Your task to perform on an android device: turn notification dots on Image 0: 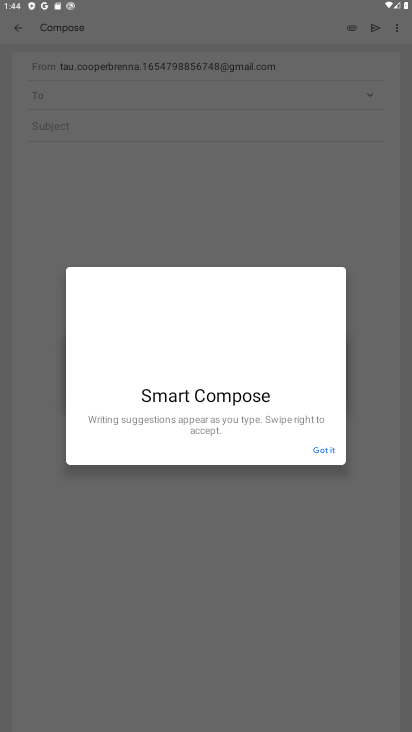
Step 0: press home button
Your task to perform on an android device: turn notification dots on Image 1: 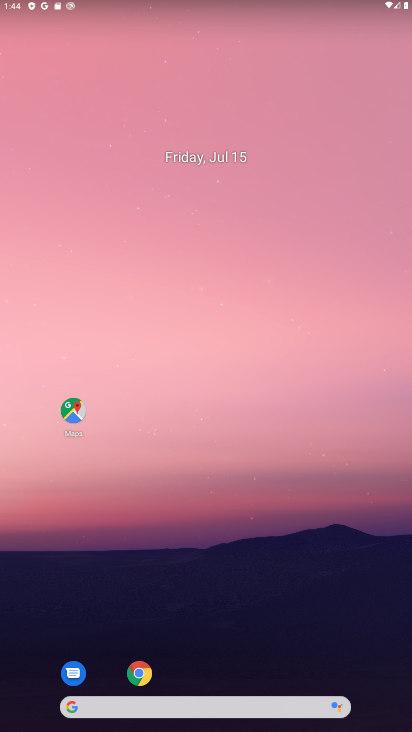
Step 1: drag from (389, 661) to (146, 0)
Your task to perform on an android device: turn notification dots on Image 2: 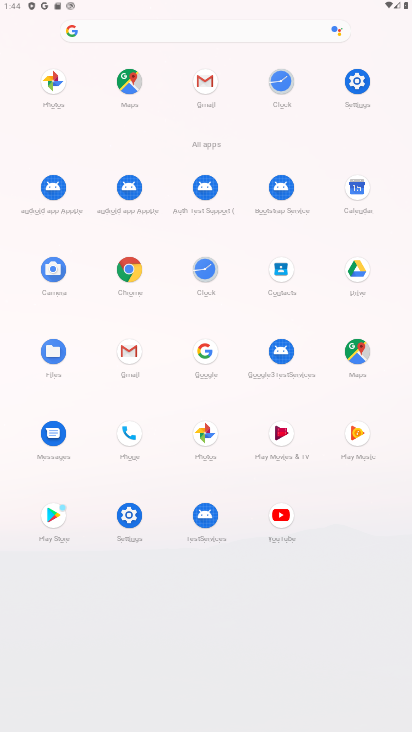
Step 2: click (363, 112)
Your task to perform on an android device: turn notification dots on Image 3: 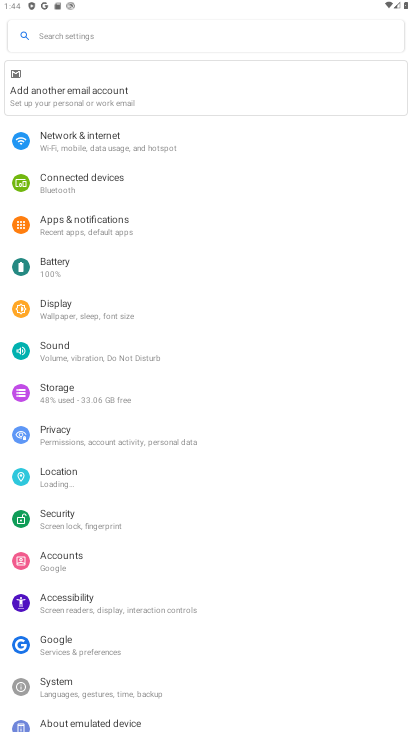
Step 3: click (247, 222)
Your task to perform on an android device: turn notification dots on Image 4: 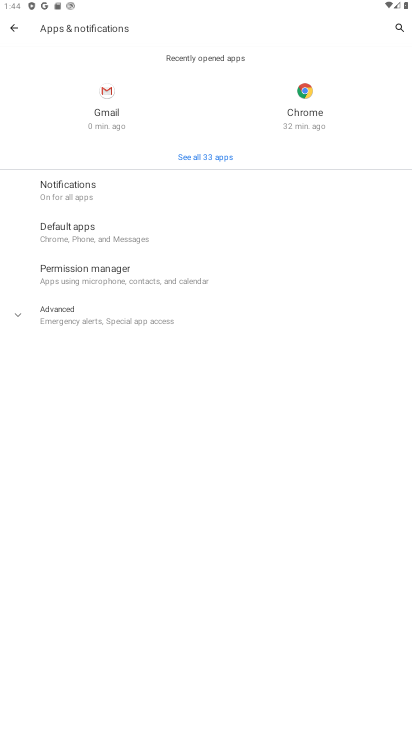
Step 4: click (214, 194)
Your task to perform on an android device: turn notification dots on Image 5: 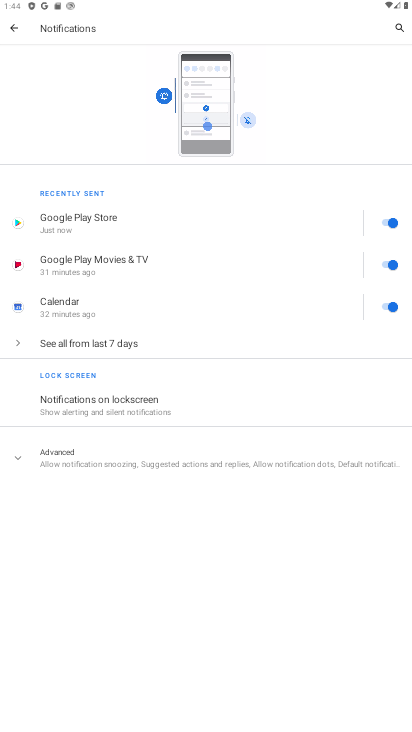
Step 5: click (210, 461)
Your task to perform on an android device: turn notification dots on Image 6: 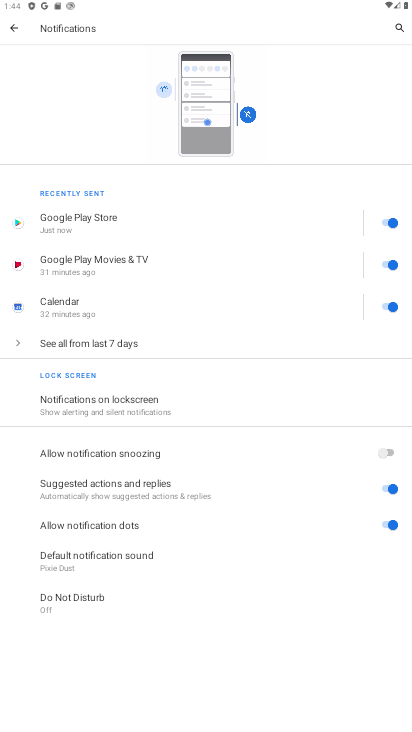
Step 6: task complete